Your task to perform on an android device: Go to sound settings Image 0: 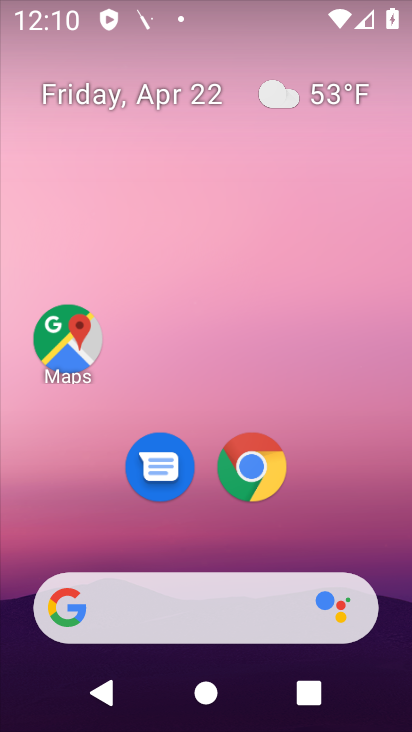
Step 0: drag from (398, 582) to (330, 237)
Your task to perform on an android device: Go to sound settings Image 1: 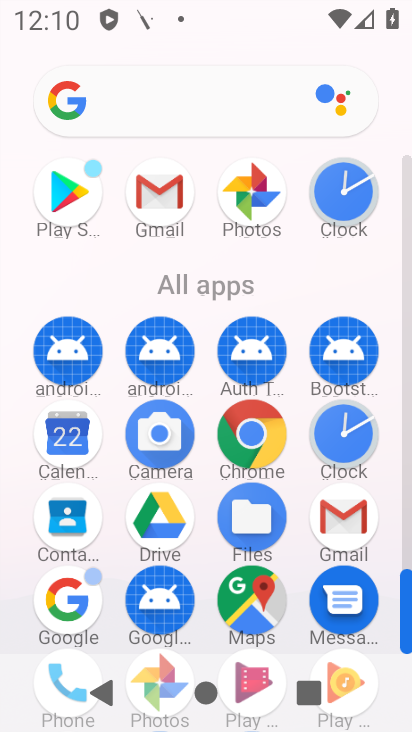
Step 1: drag from (407, 556) to (403, 451)
Your task to perform on an android device: Go to sound settings Image 2: 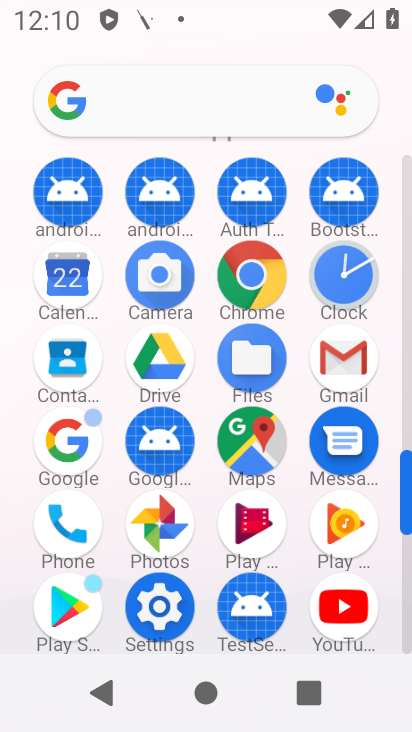
Step 2: click (157, 603)
Your task to perform on an android device: Go to sound settings Image 3: 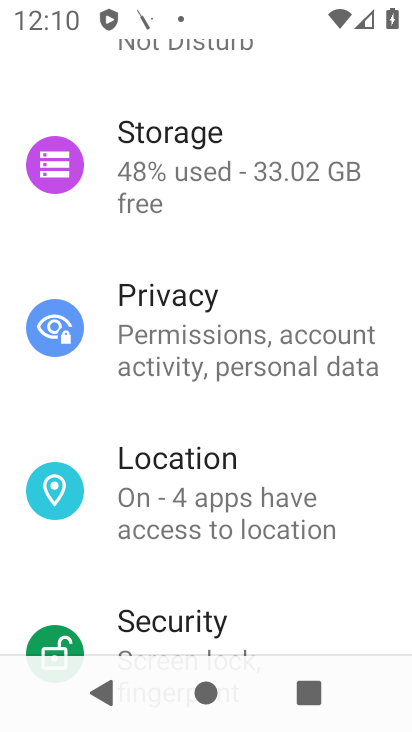
Step 3: drag from (281, 567) to (293, 612)
Your task to perform on an android device: Go to sound settings Image 4: 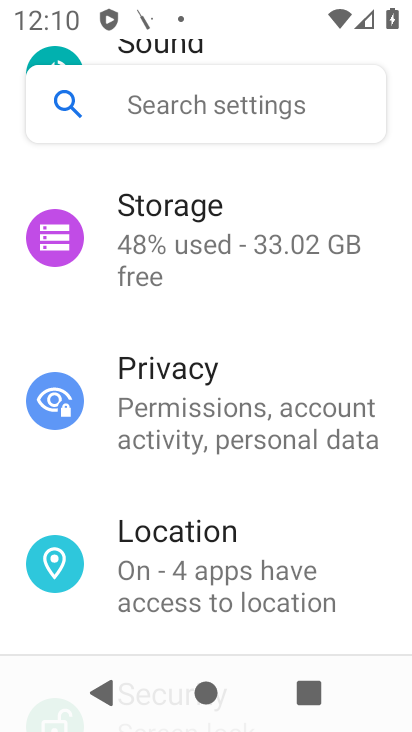
Step 4: drag from (329, 351) to (337, 528)
Your task to perform on an android device: Go to sound settings Image 5: 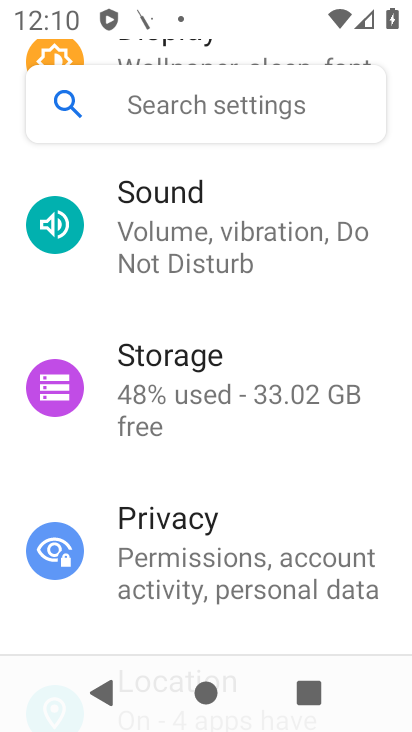
Step 5: drag from (332, 281) to (321, 408)
Your task to perform on an android device: Go to sound settings Image 6: 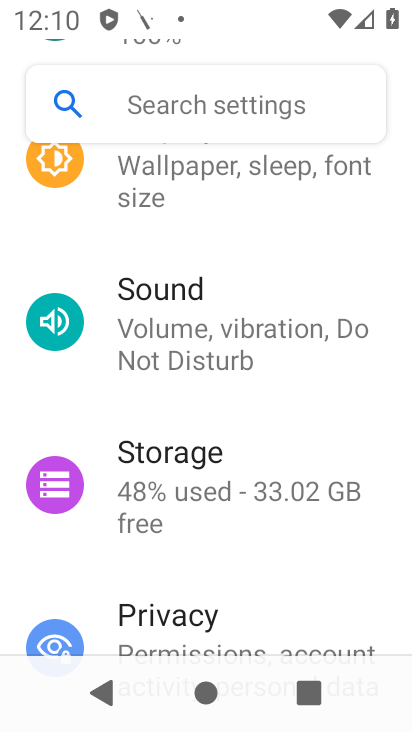
Step 6: click (171, 317)
Your task to perform on an android device: Go to sound settings Image 7: 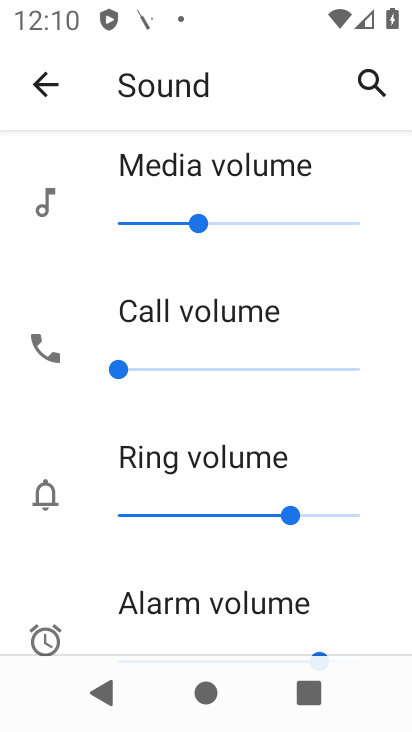
Step 7: task complete